Your task to perform on an android device: add a contact in the contacts app Image 0: 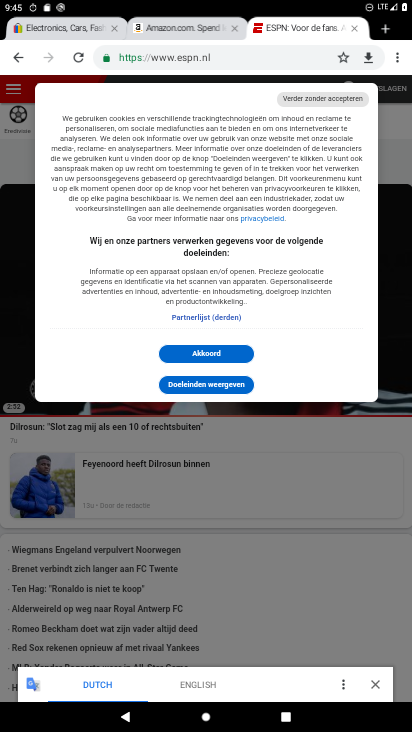
Step 0: press home button
Your task to perform on an android device: add a contact in the contacts app Image 1: 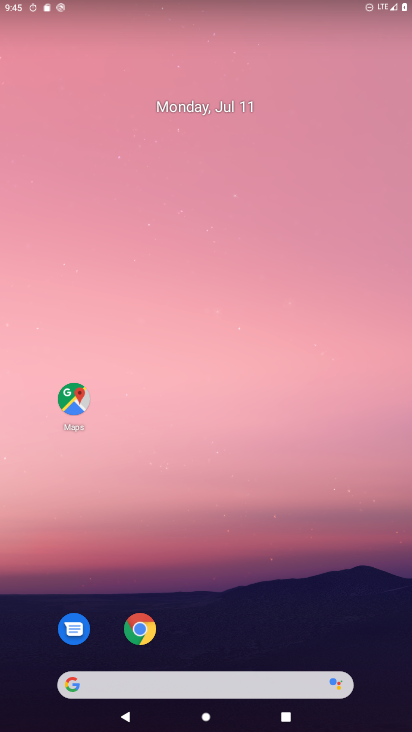
Step 1: drag from (222, 656) to (208, 142)
Your task to perform on an android device: add a contact in the contacts app Image 2: 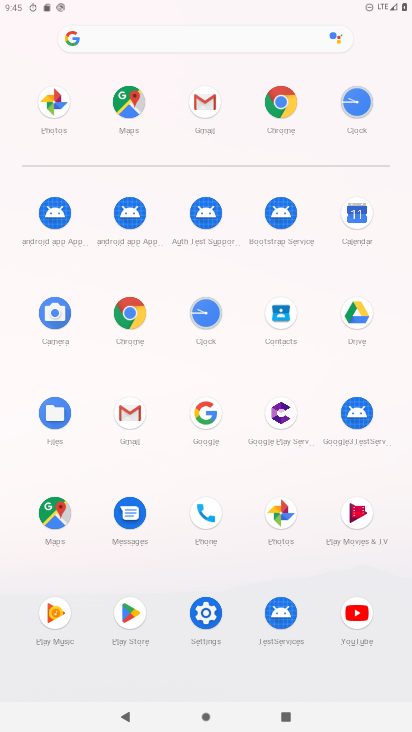
Step 2: click (285, 305)
Your task to perform on an android device: add a contact in the contacts app Image 3: 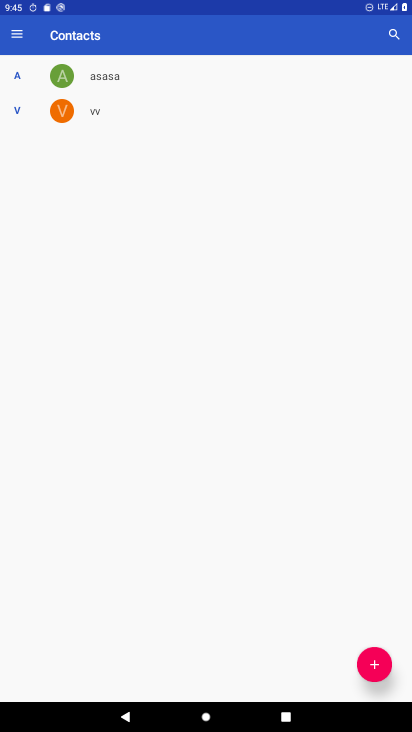
Step 3: click (383, 666)
Your task to perform on an android device: add a contact in the contacts app Image 4: 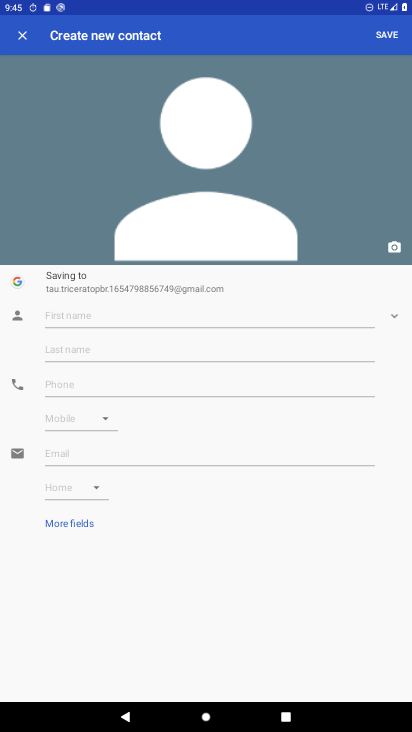
Step 4: click (170, 315)
Your task to perform on an android device: add a contact in the contacts app Image 5: 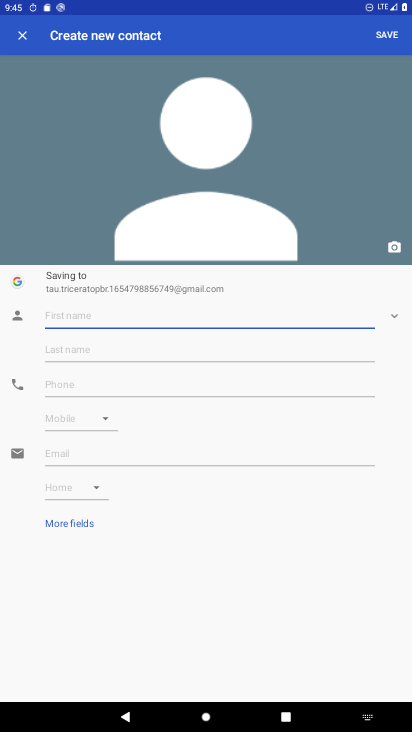
Step 5: type ",,"
Your task to perform on an android device: add a contact in the contacts app Image 6: 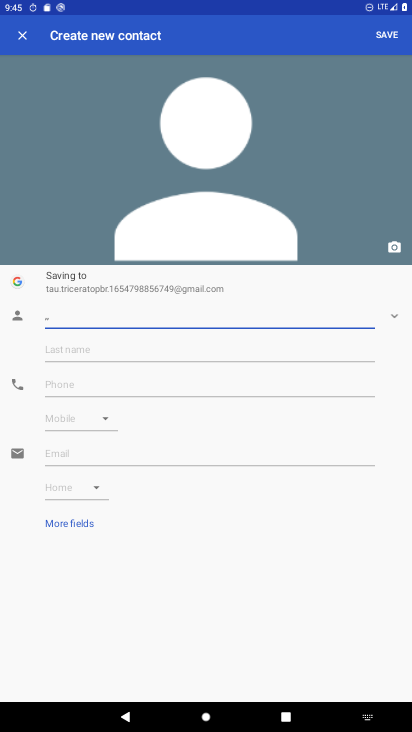
Step 6: click (165, 387)
Your task to perform on an android device: add a contact in the contacts app Image 7: 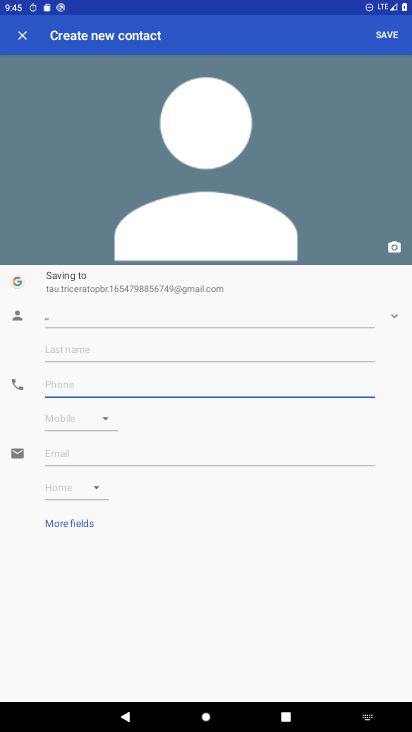
Step 7: type "987654323"
Your task to perform on an android device: add a contact in the contacts app Image 8: 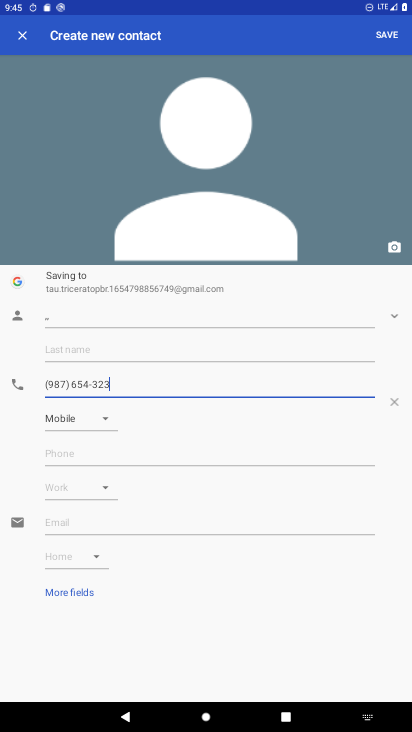
Step 8: click (393, 29)
Your task to perform on an android device: add a contact in the contacts app Image 9: 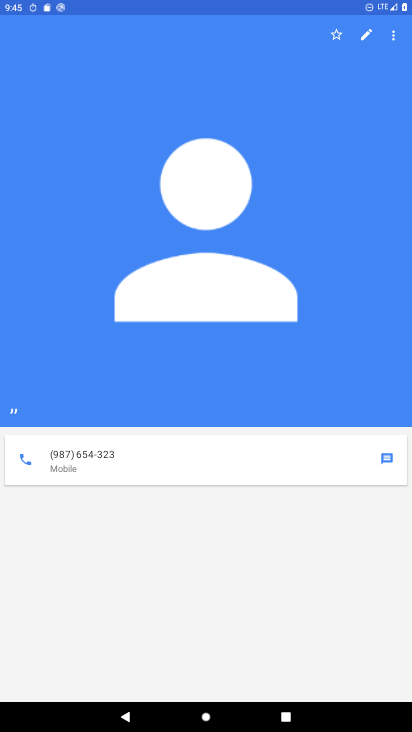
Step 9: task complete